Your task to perform on an android device: Open privacy settings Image 0: 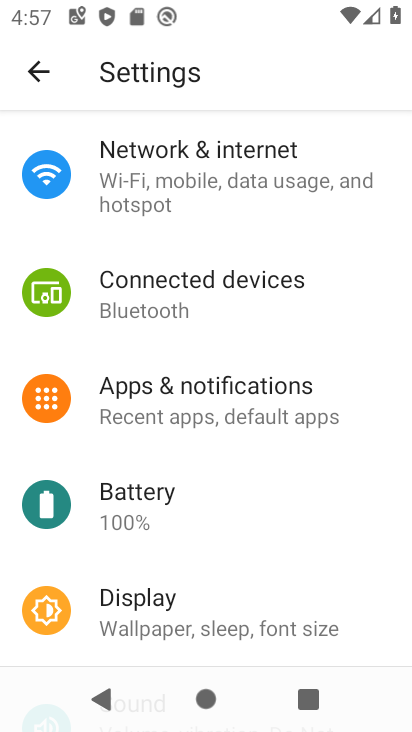
Step 0: drag from (207, 537) to (175, 224)
Your task to perform on an android device: Open privacy settings Image 1: 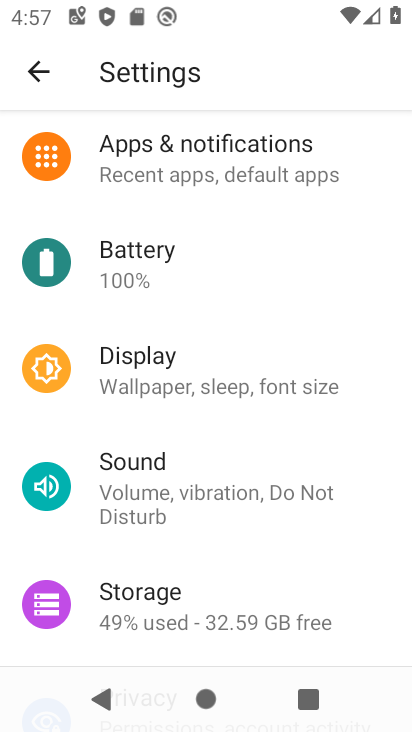
Step 1: drag from (231, 541) to (208, 255)
Your task to perform on an android device: Open privacy settings Image 2: 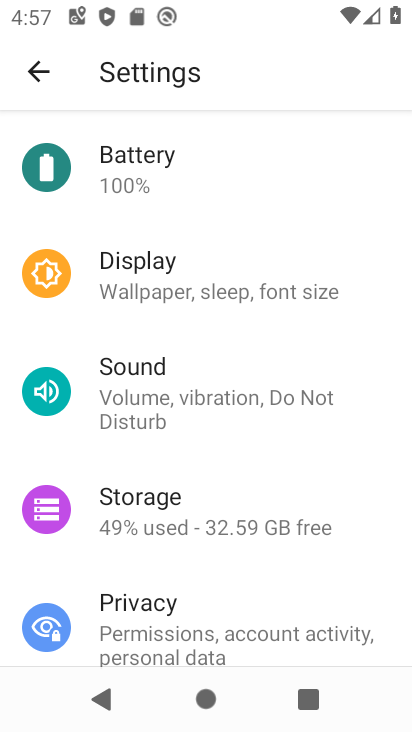
Step 2: click (135, 606)
Your task to perform on an android device: Open privacy settings Image 3: 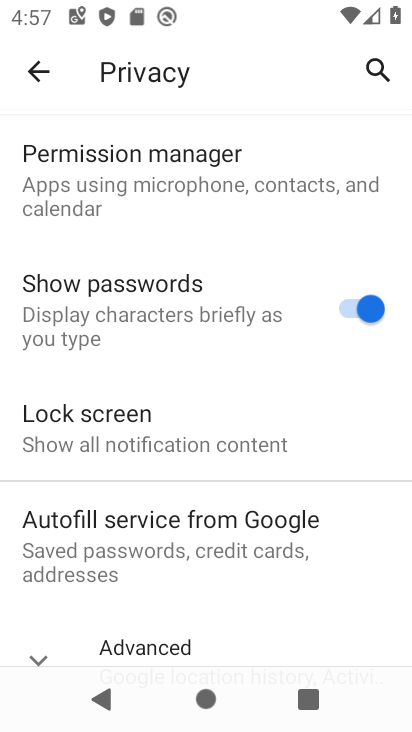
Step 3: task complete